Your task to perform on an android device: toggle airplane mode Image 0: 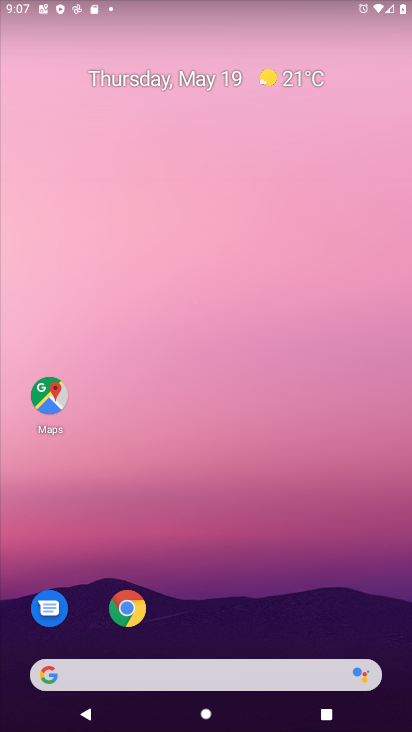
Step 0: drag from (311, 521) to (299, 22)
Your task to perform on an android device: toggle airplane mode Image 1: 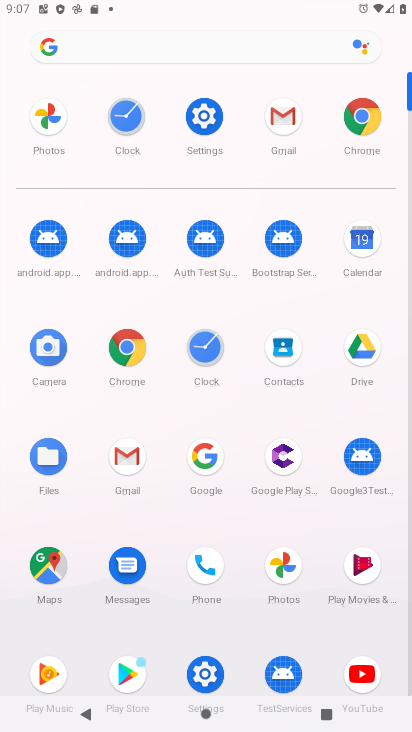
Step 1: click (197, 112)
Your task to perform on an android device: toggle airplane mode Image 2: 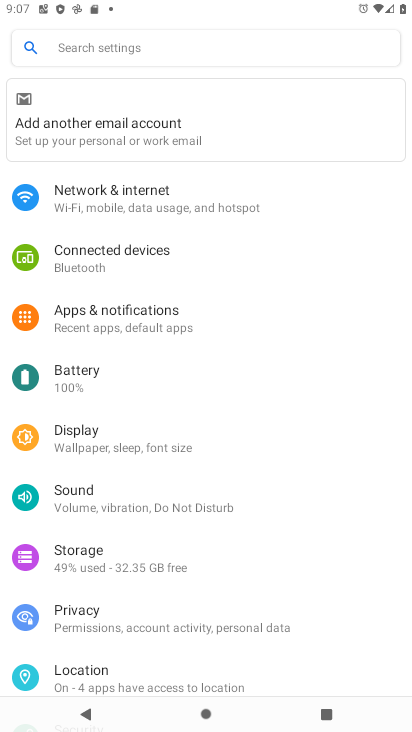
Step 2: click (109, 191)
Your task to perform on an android device: toggle airplane mode Image 3: 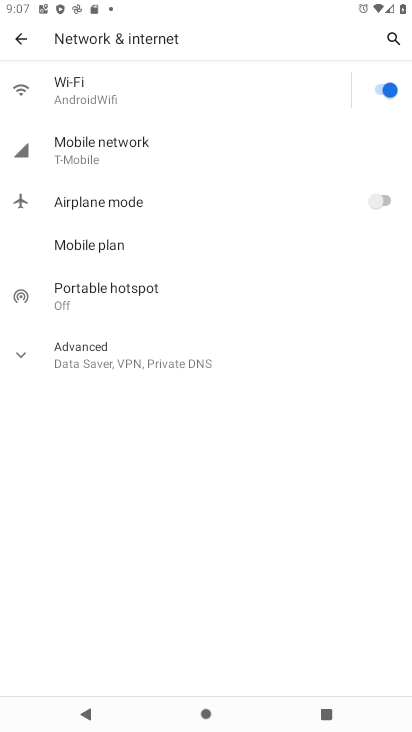
Step 3: click (381, 194)
Your task to perform on an android device: toggle airplane mode Image 4: 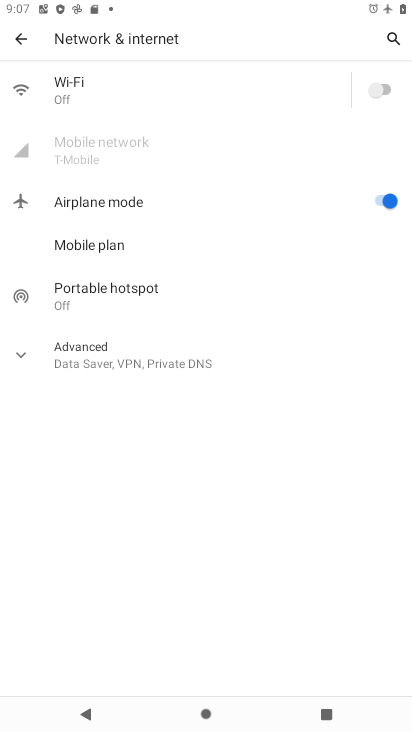
Step 4: task complete